Your task to perform on an android device: Open Google Chrome and click the shortcut for Amazon.com Image 0: 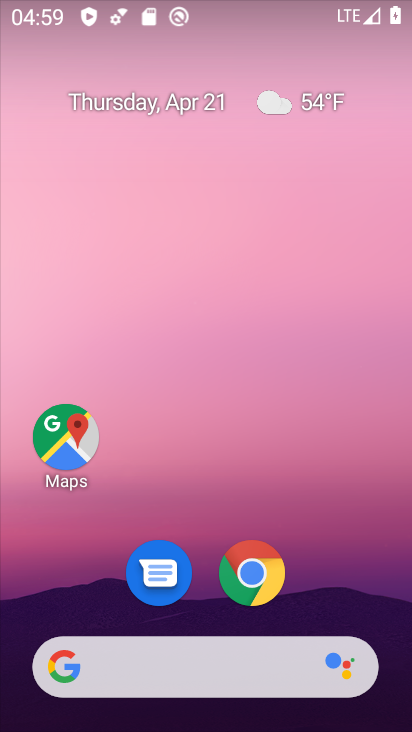
Step 0: click (252, 576)
Your task to perform on an android device: Open Google Chrome and click the shortcut for Amazon.com Image 1: 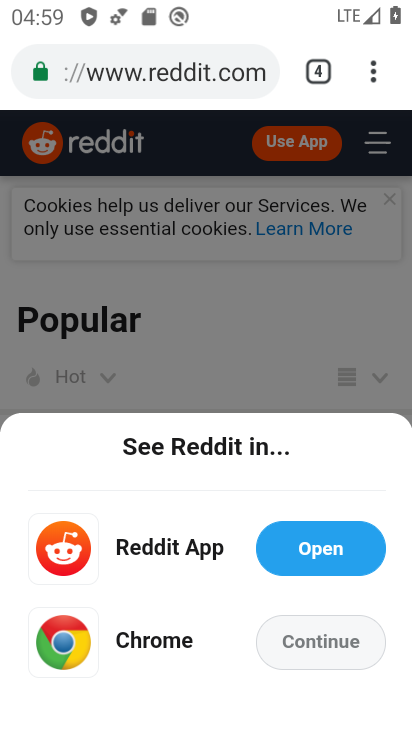
Step 1: click (374, 79)
Your task to perform on an android device: Open Google Chrome and click the shortcut for Amazon.com Image 2: 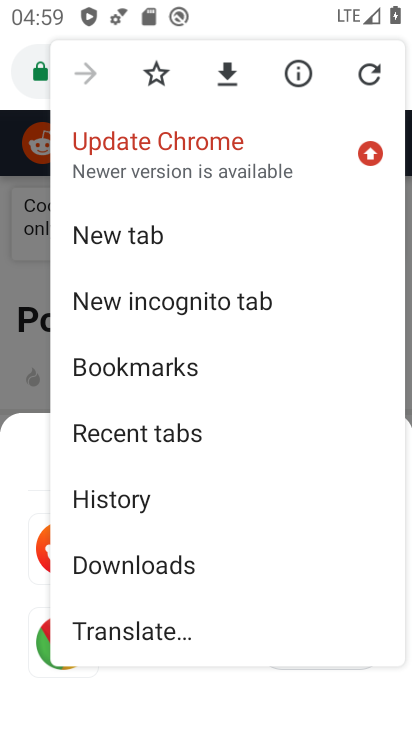
Step 2: click (123, 237)
Your task to perform on an android device: Open Google Chrome and click the shortcut for Amazon.com Image 3: 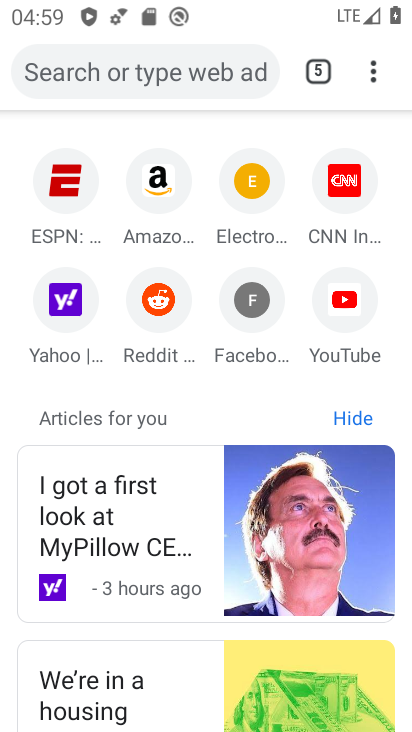
Step 3: click (160, 182)
Your task to perform on an android device: Open Google Chrome and click the shortcut for Amazon.com Image 4: 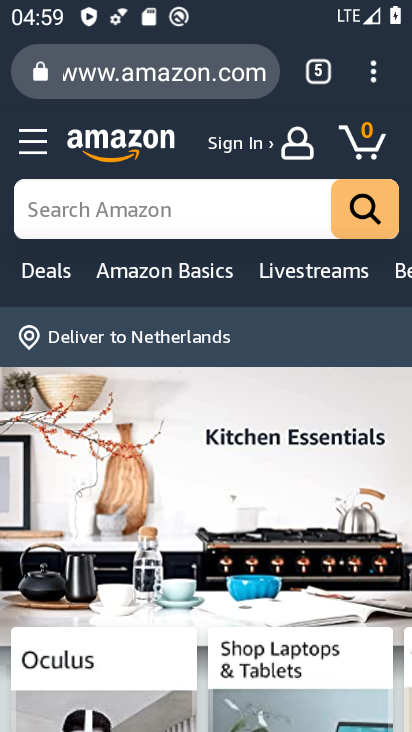
Step 4: task complete